Your task to perform on an android device: open sync settings in chrome Image 0: 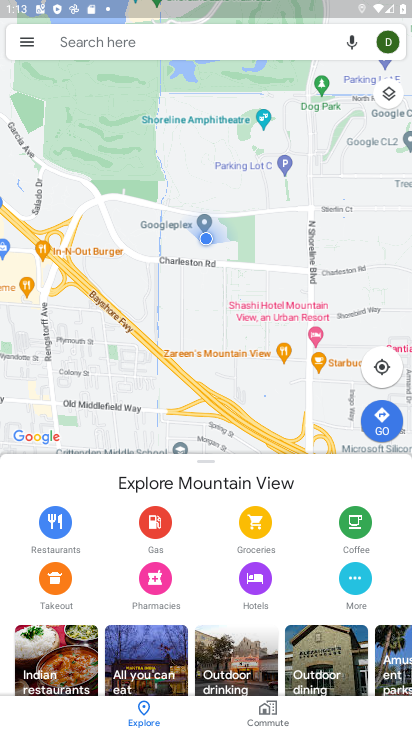
Step 0: press home button
Your task to perform on an android device: open sync settings in chrome Image 1: 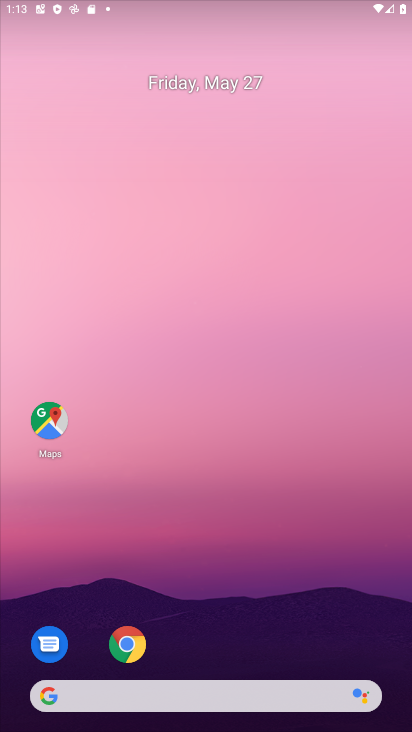
Step 1: drag from (297, 607) to (256, 17)
Your task to perform on an android device: open sync settings in chrome Image 2: 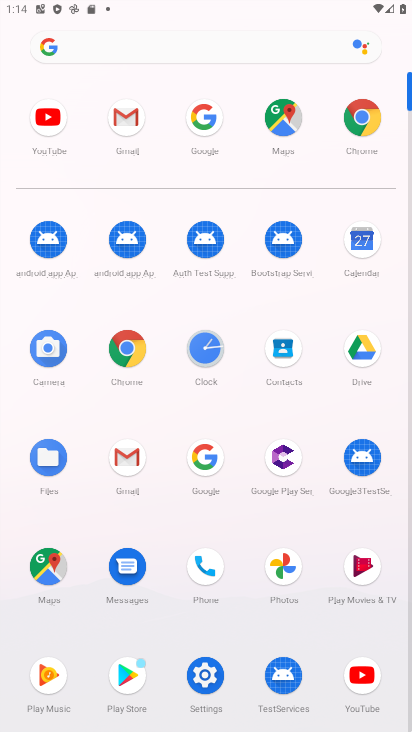
Step 2: click (123, 338)
Your task to perform on an android device: open sync settings in chrome Image 3: 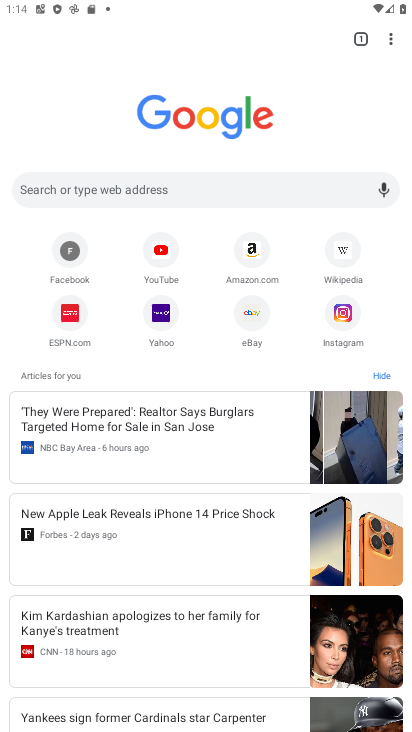
Step 3: click (396, 37)
Your task to perform on an android device: open sync settings in chrome Image 4: 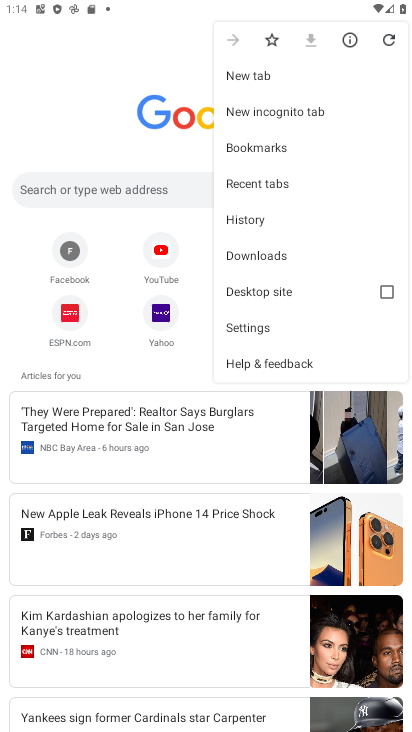
Step 4: click (258, 322)
Your task to perform on an android device: open sync settings in chrome Image 5: 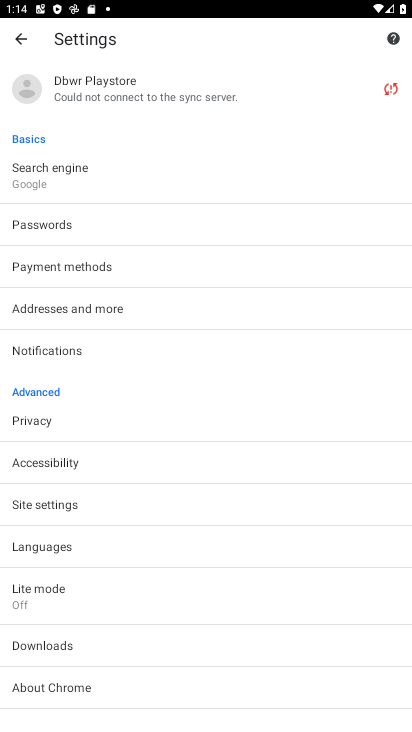
Step 5: click (100, 514)
Your task to perform on an android device: open sync settings in chrome Image 6: 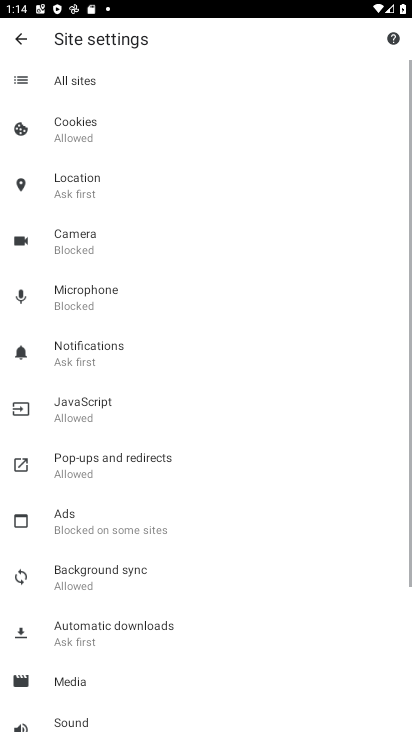
Step 6: click (106, 589)
Your task to perform on an android device: open sync settings in chrome Image 7: 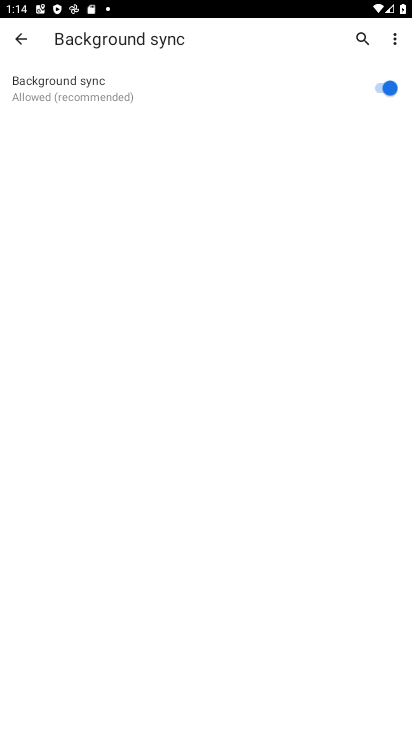
Step 7: task complete